Your task to perform on an android device: check google app version Image 0: 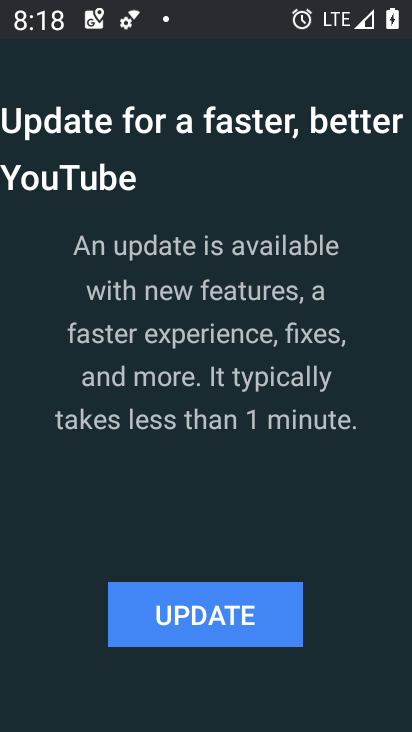
Step 0: press home button
Your task to perform on an android device: check google app version Image 1: 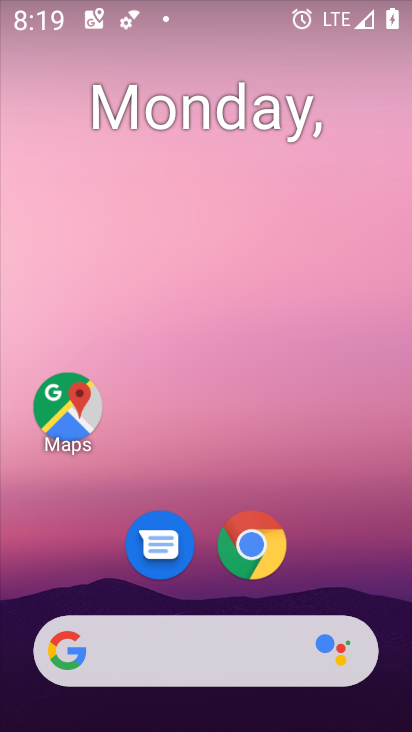
Step 1: drag from (156, 618) to (281, 115)
Your task to perform on an android device: check google app version Image 2: 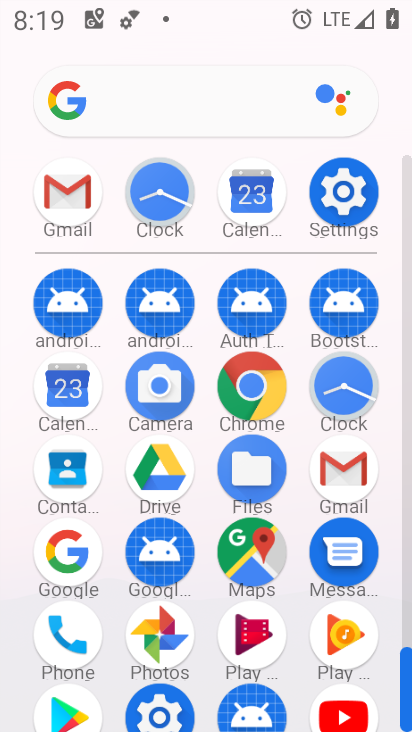
Step 2: drag from (79, 550) to (103, 519)
Your task to perform on an android device: check google app version Image 3: 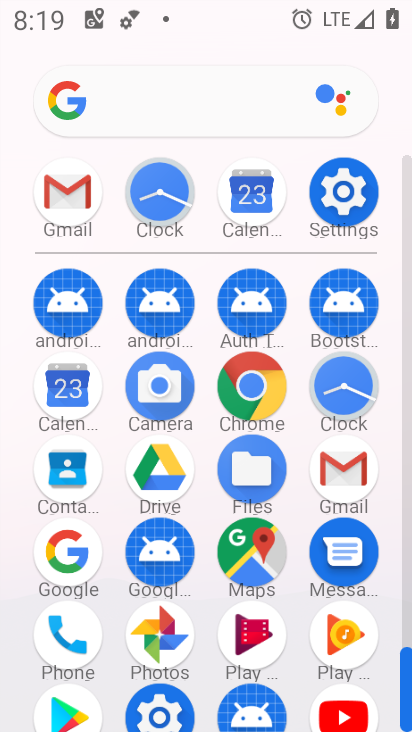
Step 3: click (261, 100)
Your task to perform on an android device: check google app version Image 4: 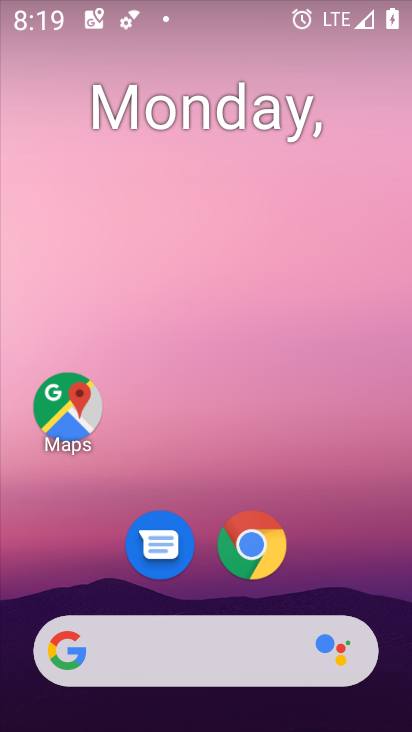
Step 4: drag from (183, 653) to (280, 61)
Your task to perform on an android device: check google app version Image 5: 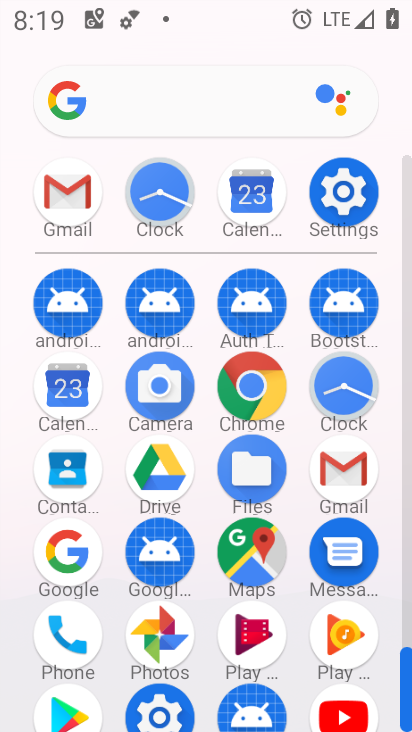
Step 5: drag from (78, 548) to (168, 333)
Your task to perform on an android device: check google app version Image 6: 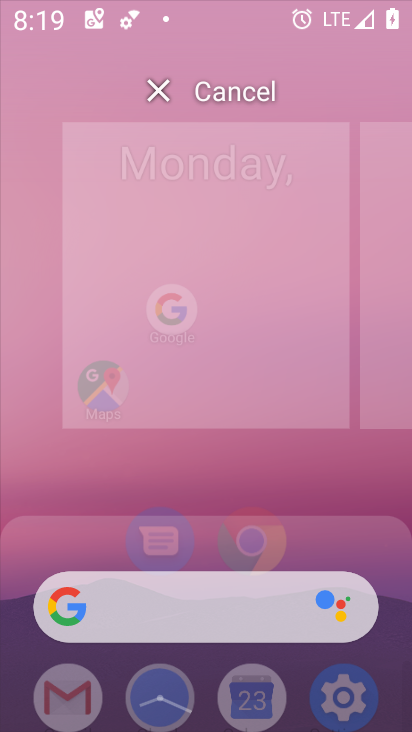
Step 6: click (268, 97)
Your task to perform on an android device: check google app version Image 7: 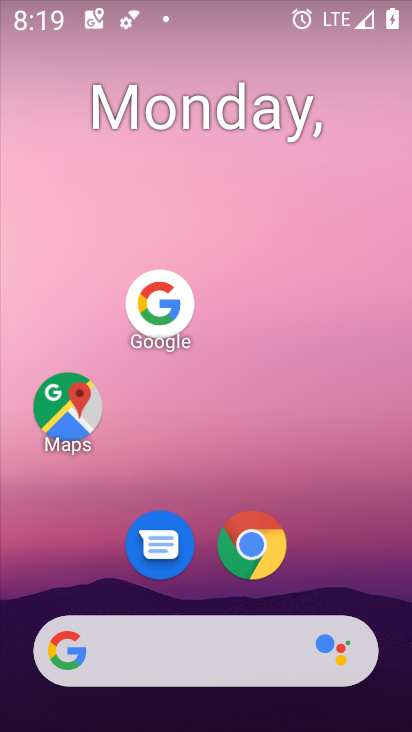
Step 7: click (159, 307)
Your task to perform on an android device: check google app version Image 8: 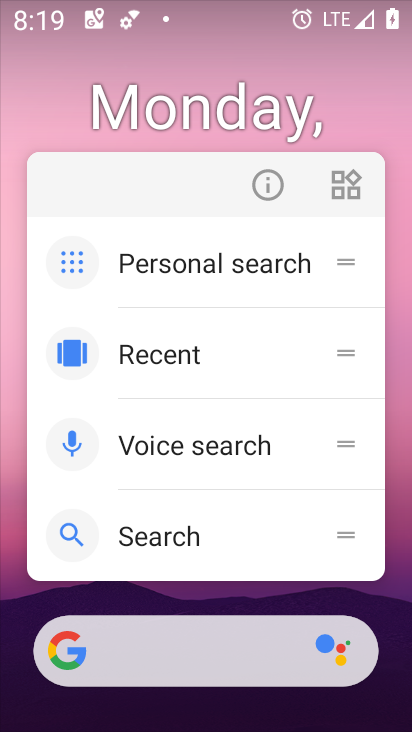
Step 8: click (280, 186)
Your task to perform on an android device: check google app version Image 9: 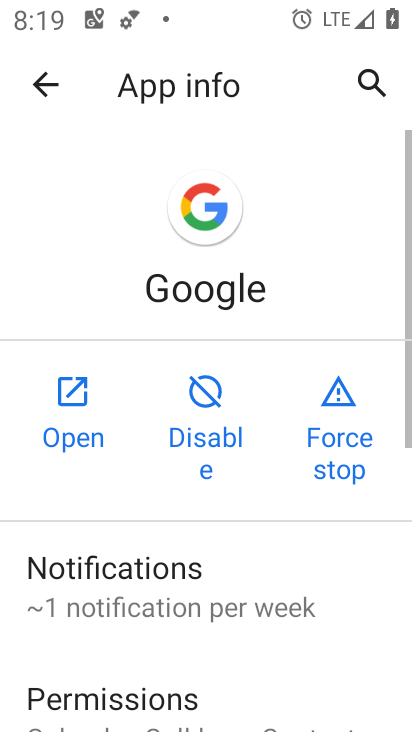
Step 9: drag from (218, 660) to (339, 60)
Your task to perform on an android device: check google app version Image 10: 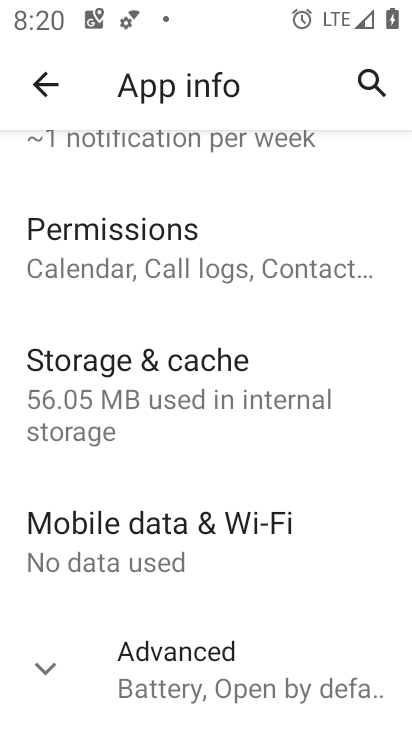
Step 10: drag from (146, 622) to (257, 183)
Your task to perform on an android device: check google app version Image 11: 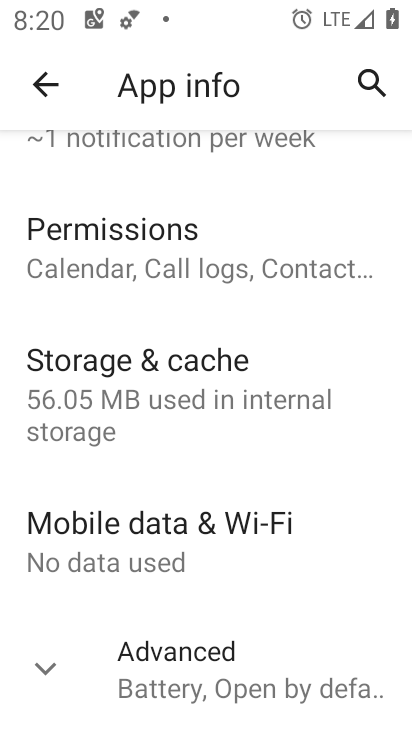
Step 11: click (218, 671)
Your task to perform on an android device: check google app version Image 12: 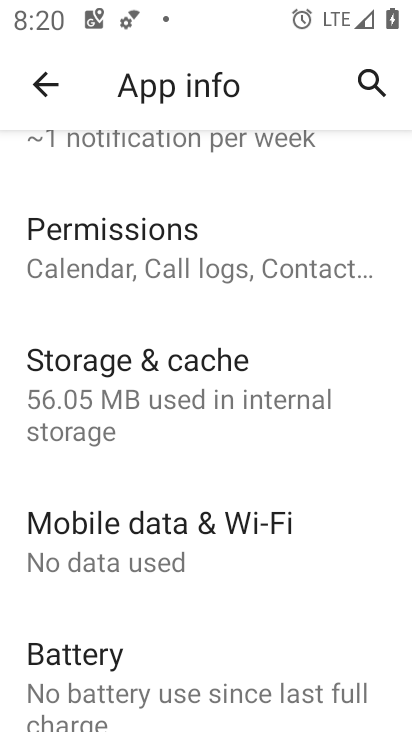
Step 12: task complete